Your task to perform on an android device: turn on the 12-hour format for clock Image 0: 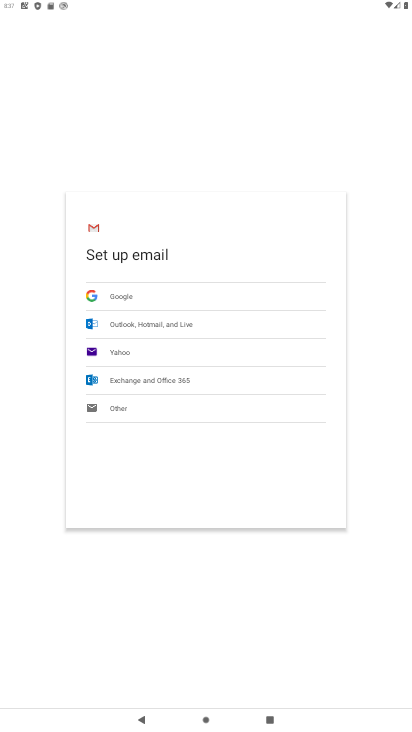
Step 0: press home button
Your task to perform on an android device: turn on the 12-hour format for clock Image 1: 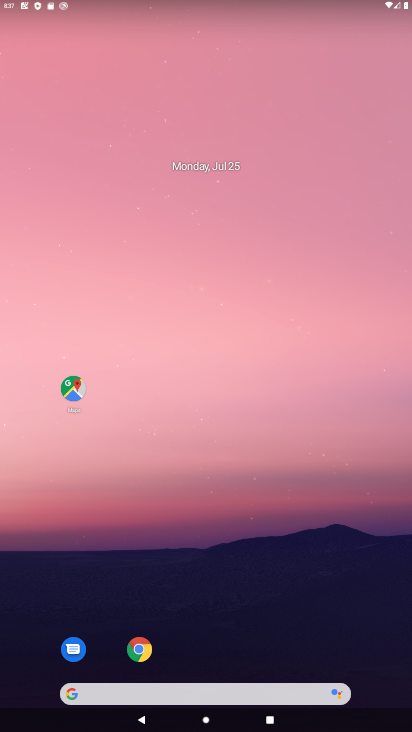
Step 1: drag from (190, 665) to (131, 57)
Your task to perform on an android device: turn on the 12-hour format for clock Image 2: 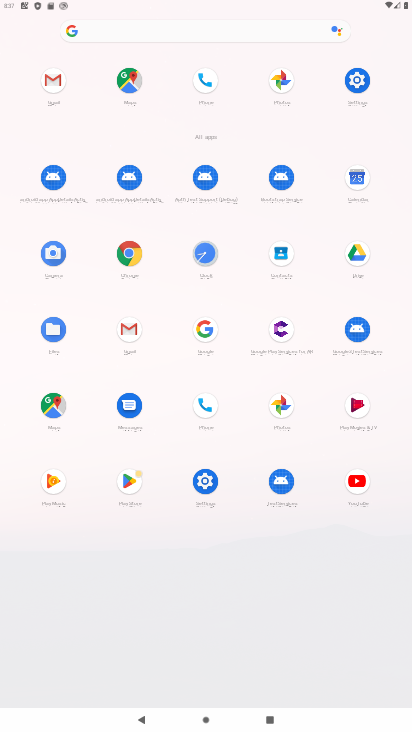
Step 2: click (198, 255)
Your task to perform on an android device: turn on the 12-hour format for clock Image 3: 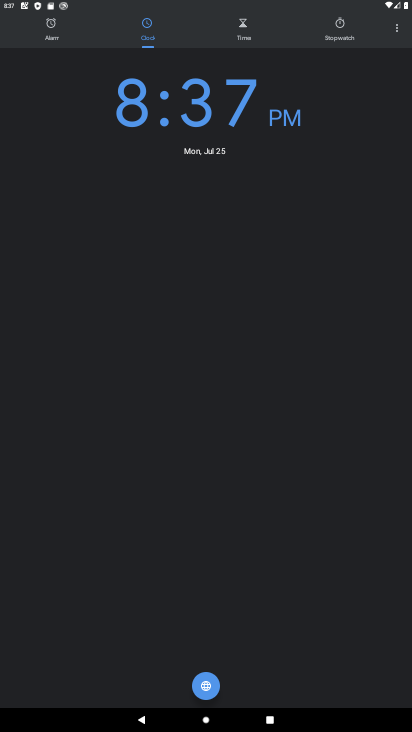
Step 3: click (392, 28)
Your task to perform on an android device: turn on the 12-hour format for clock Image 4: 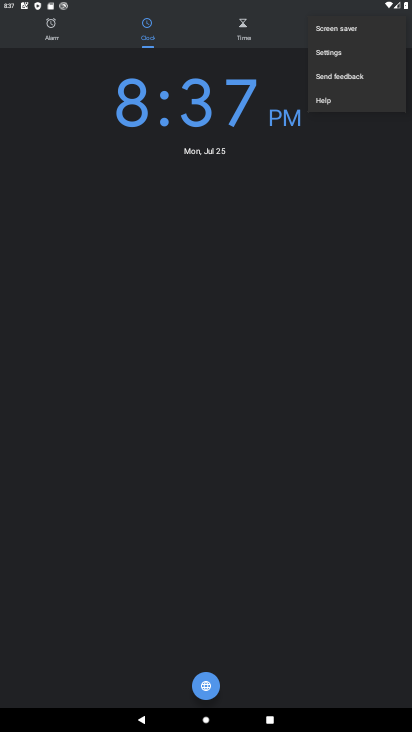
Step 4: click (324, 55)
Your task to perform on an android device: turn on the 12-hour format for clock Image 5: 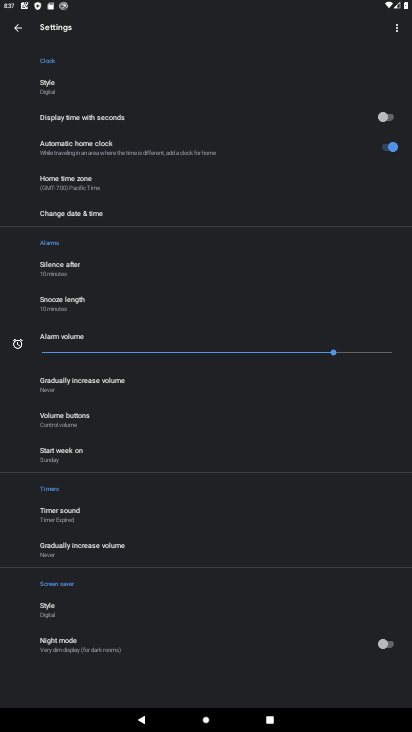
Step 5: click (80, 213)
Your task to perform on an android device: turn on the 12-hour format for clock Image 6: 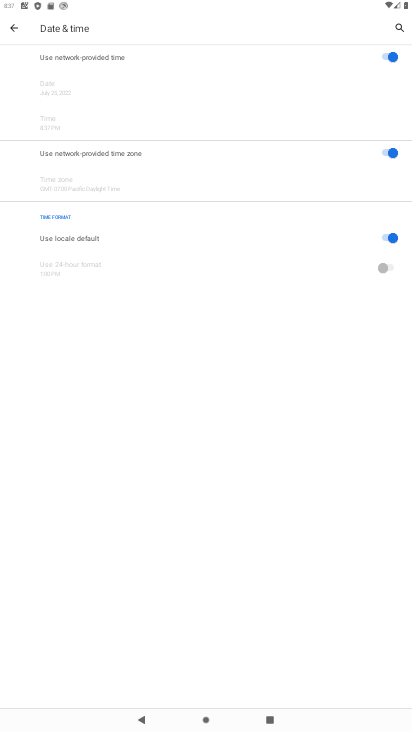
Step 6: task complete